Your task to perform on an android device: Open sound settings Image 0: 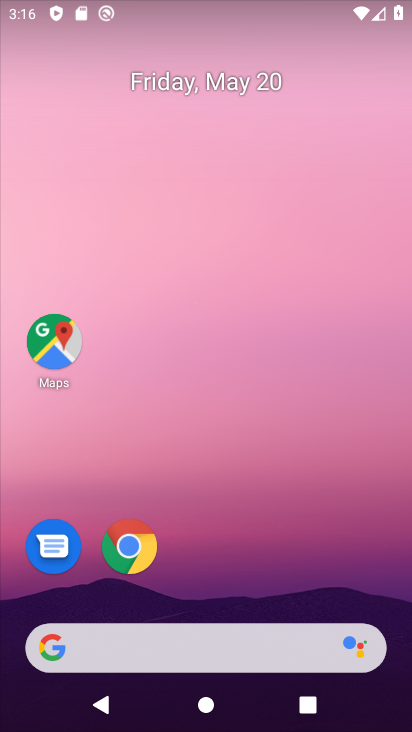
Step 0: drag from (187, 496) to (211, 91)
Your task to perform on an android device: Open sound settings Image 1: 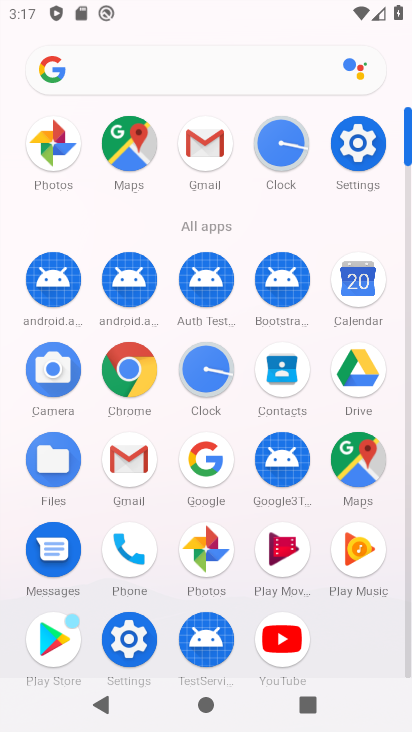
Step 1: click (202, 370)
Your task to perform on an android device: Open sound settings Image 2: 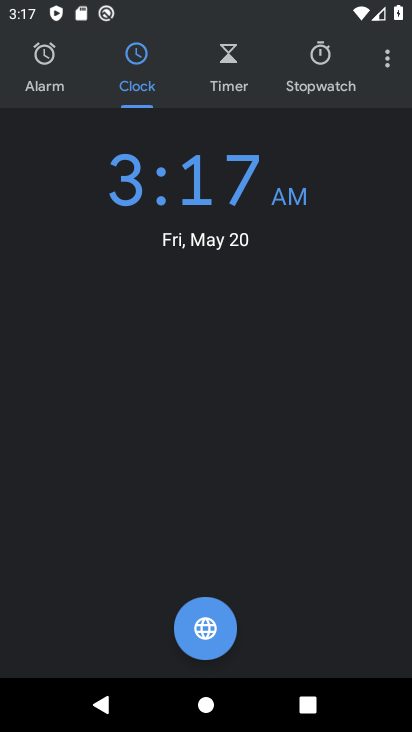
Step 2: click (386, 60)
Your task to perform on an android device: Open sound settings Image 3: 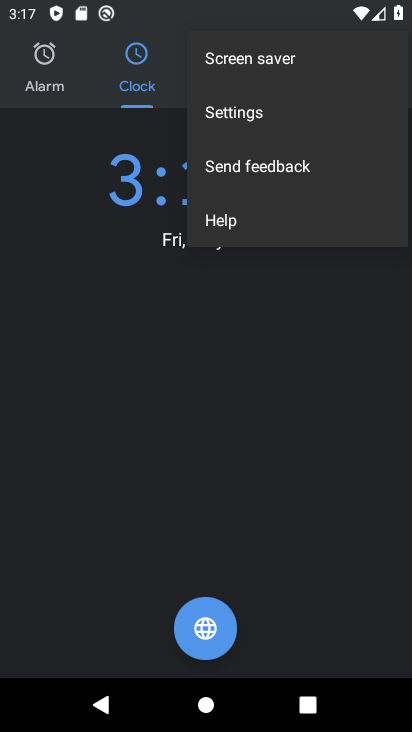
Step 3: click (252, 124)
Your task to perform on an android device: Open sound settings Image 4: 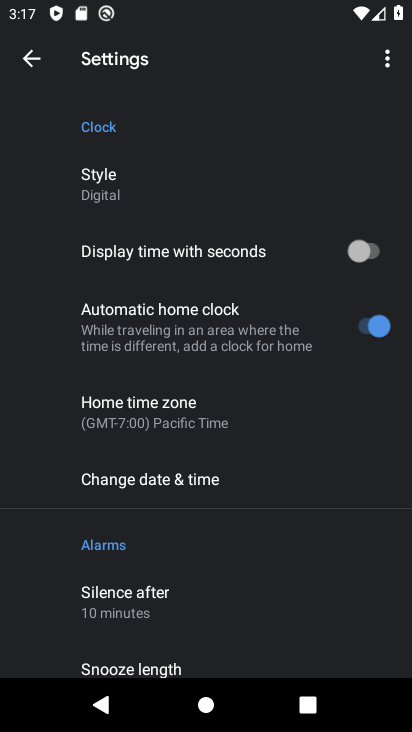
Step 4: drag from (174, 514) to (271, 158)
Your task to perform on an android device: Open sound settings Image 5: 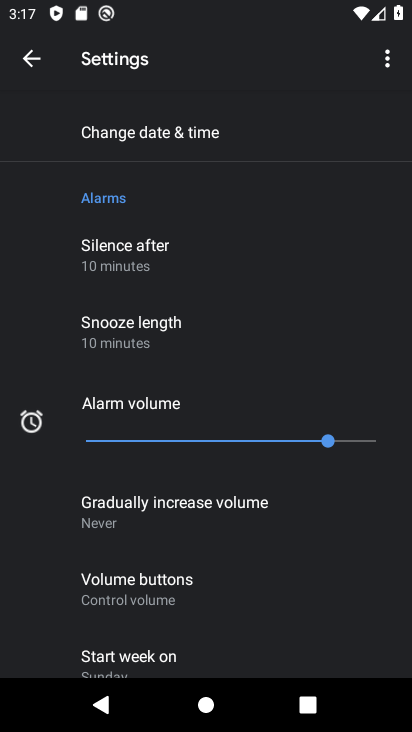
Step 5: drag from (258, 597) to (274, 652)
Your task to perform on an android device: Open sound settings Image 6: 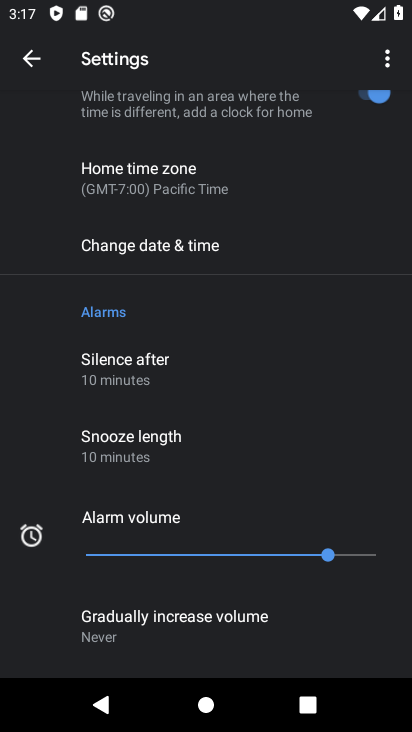
Step 6: press home button
Your task to perform on an android device: Open sound settings Image 7: 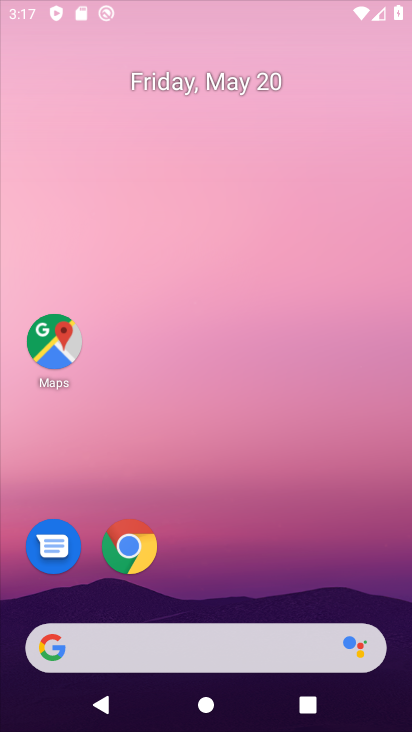
Step 7: drag from (229, 480) to (283, 36)
Your task to perform on an android device: Open sound settings Image 8: 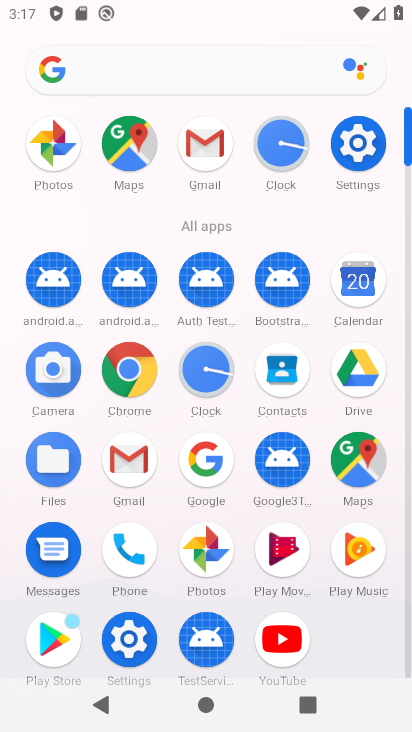
Step 8: click (364, 144)
Your task to perform on an android device: Open sound settings Image 9: 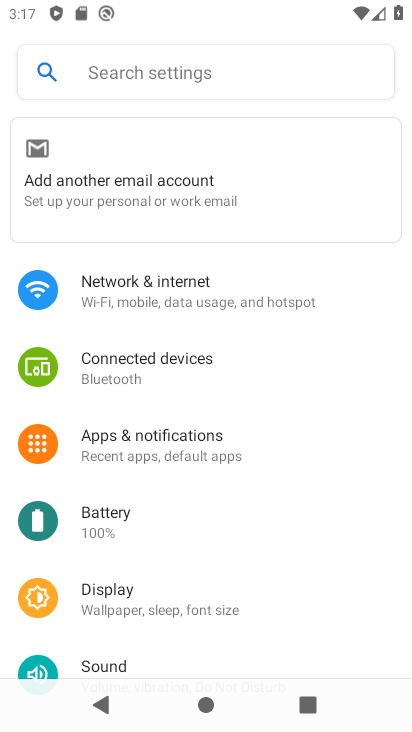
Step 9: click (90, 659)
Your task to perform on an android device: Open sound settings Image 10: 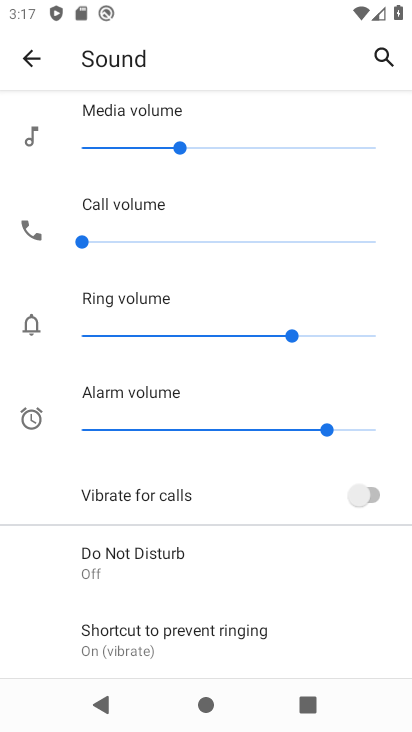
Step 10: task complete